Your task to perform on an android device: Empty the shopping cart on target. Search for usb-c to usb-b on target, select the first entry, and add it to the cart. Image 0: 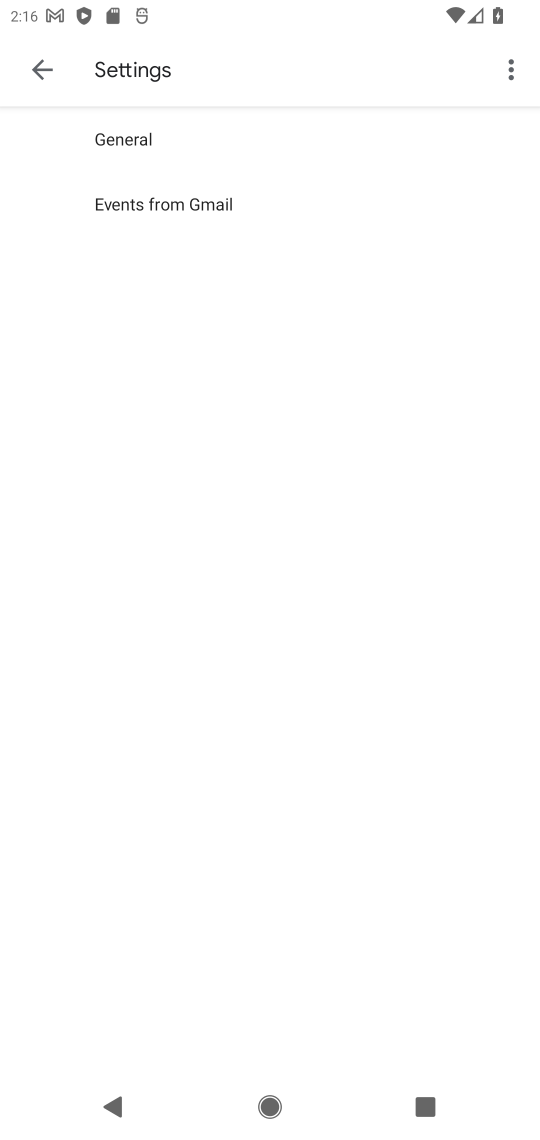
Step 0: press home button
Your task to perform on an android device: Empty the shopping cart on target. Search for usb-c to usb-b on target, select the first entry, and add it to the cart. Image 1: 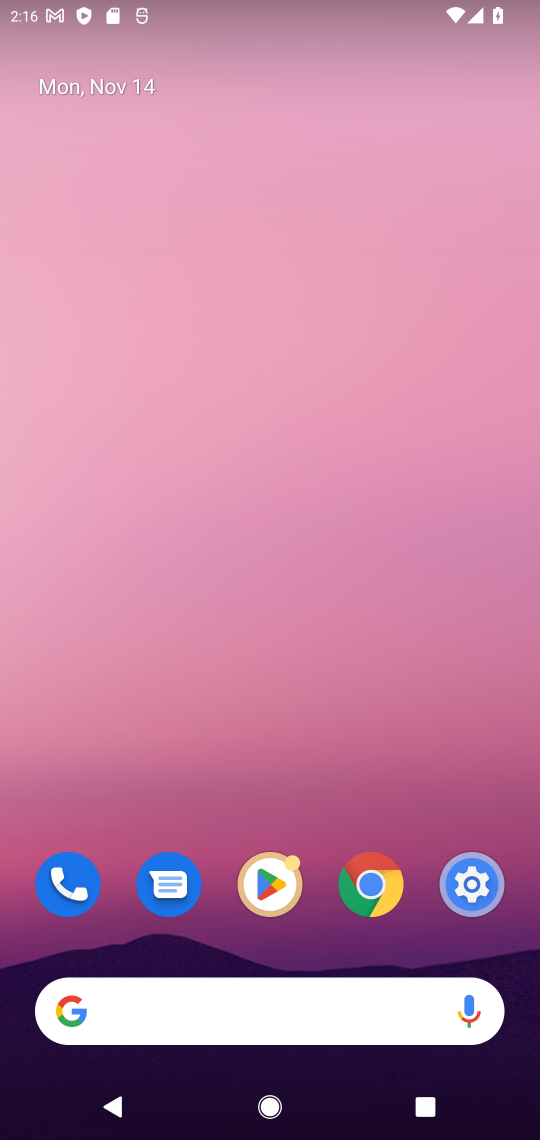
Step 1: click (363, 870)
Your task to perform on an android device: Empty the shopping cart on target. Search for usb-c to usb-b on target, select the first entry, and add it to the cart. Image 2: 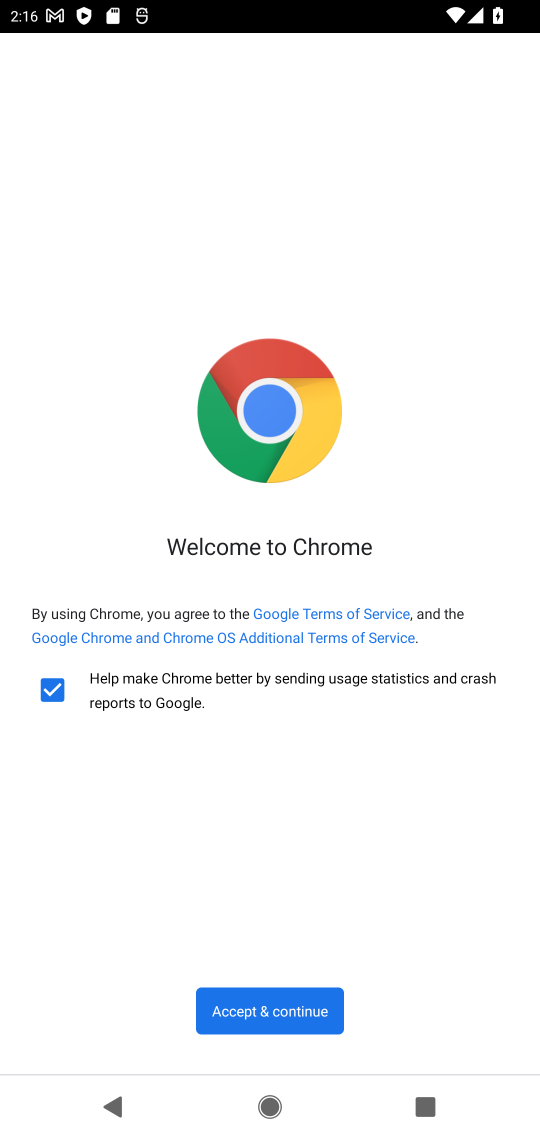
Step 2: click (269, 1006)
Your task to perform on an android device: Empty the shopping cart on target. Search for usb-c to usb-b on target, select the first entry, and add it to the cart. Image 3: 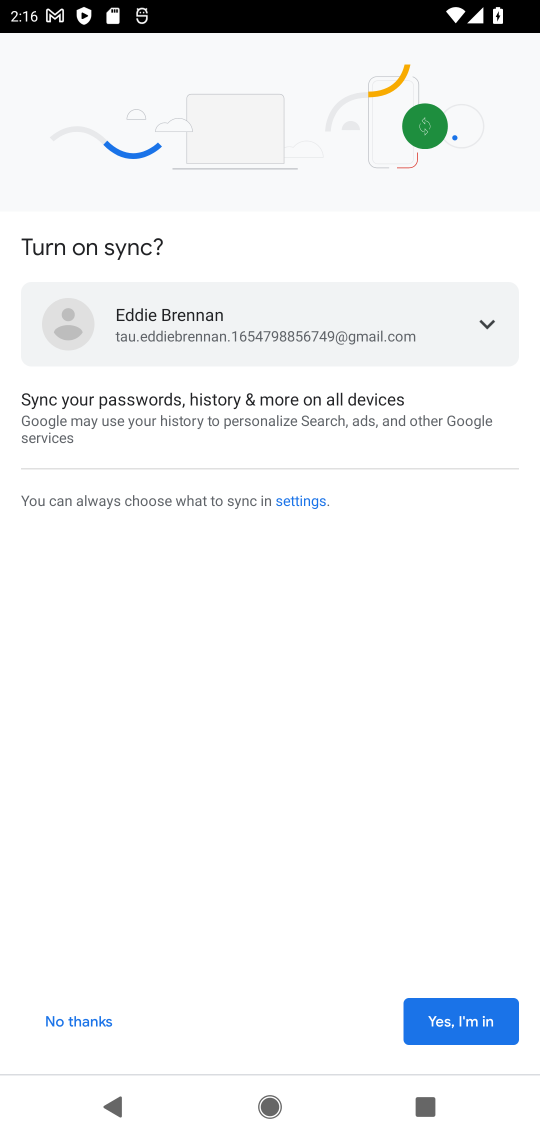
Step 3: click (484, 1022)
Your task to perform on an android device: Empty the shopping cart on target. Search for usb-c to usb-b on target, select the first entry, and add it to the cart. Image 4: 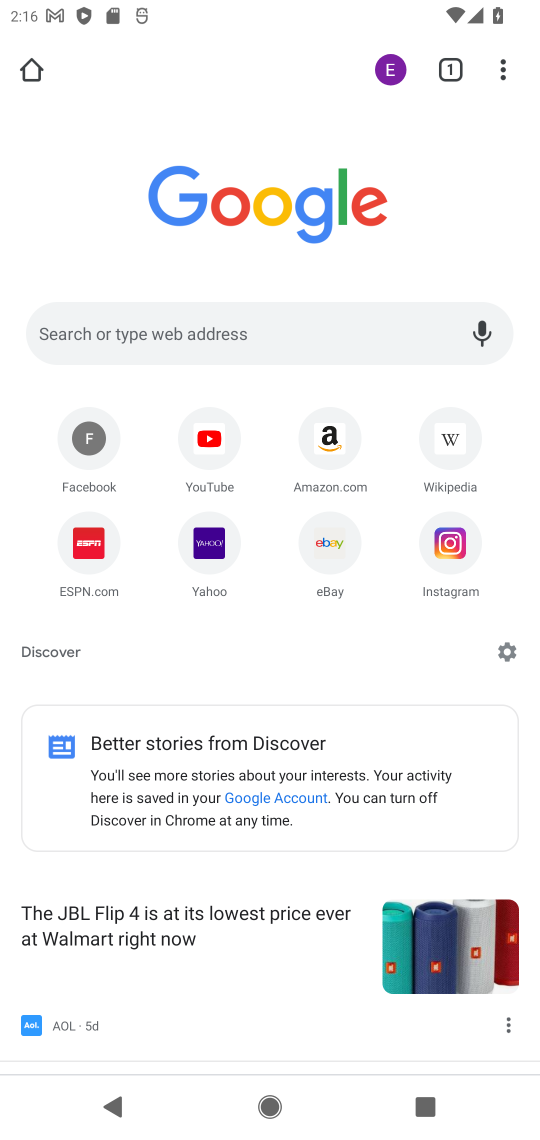
Step 4: click (284, 354)
Your task to perform on an android device: Empty the shopping cart on target. Search for usb-c to usb-b on target, select the first entry, and add it to the cart. Image 5: 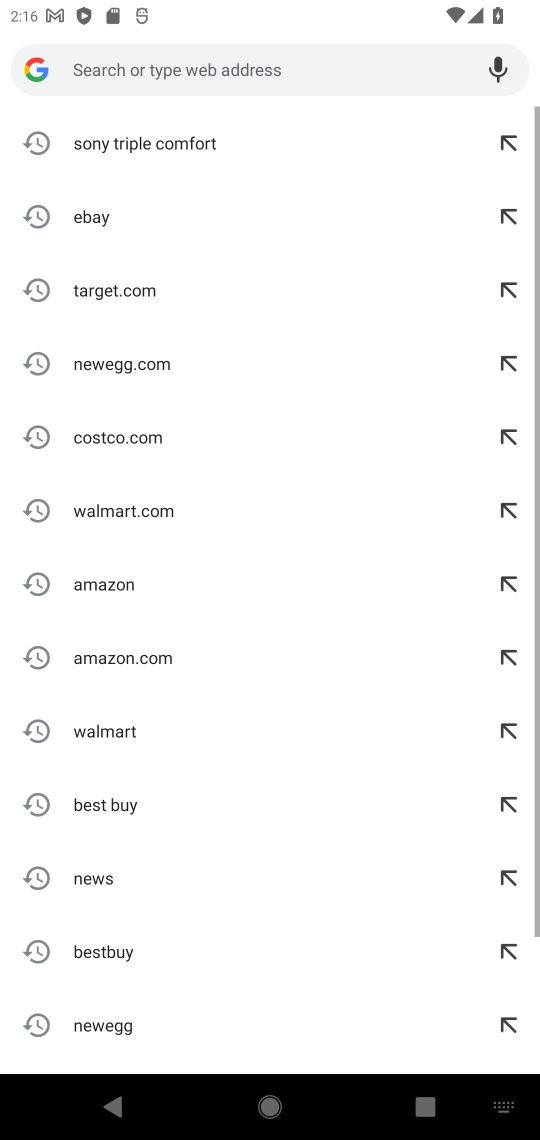
Step 5: click (120, 299)
Your task to perform on an android device: Empty the shopping cart on target. Search for usb-c to usb-b on target, select the first entry, and add it to the cart. Image 6: 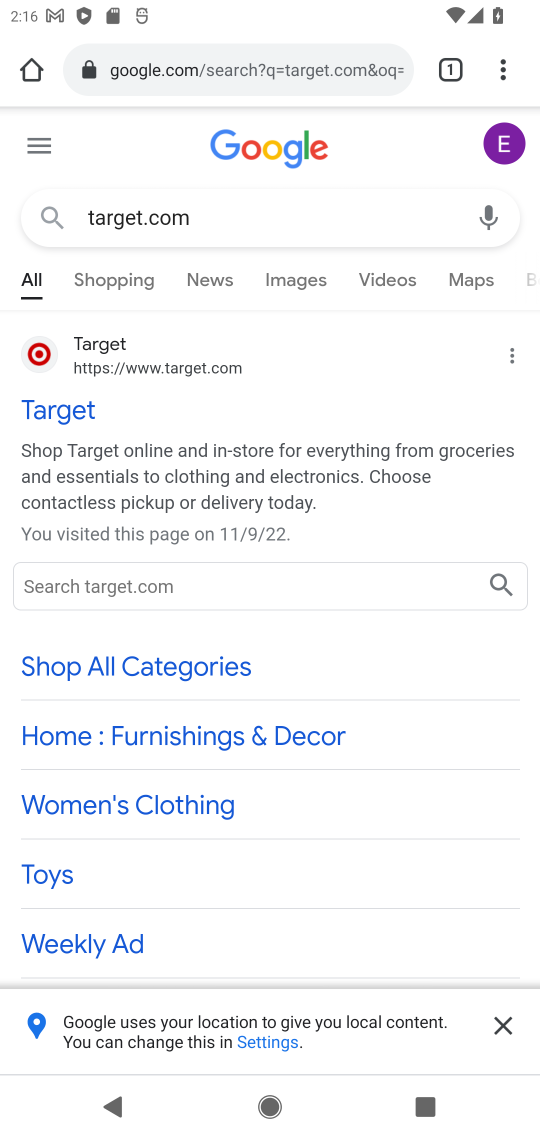
Step 6: click (200, 369)
Your task to perform on an android device: Empty the shopping cart on target. Search for usb-c to usb-b on target, select the first entry, and add it to the cart. Image 7: 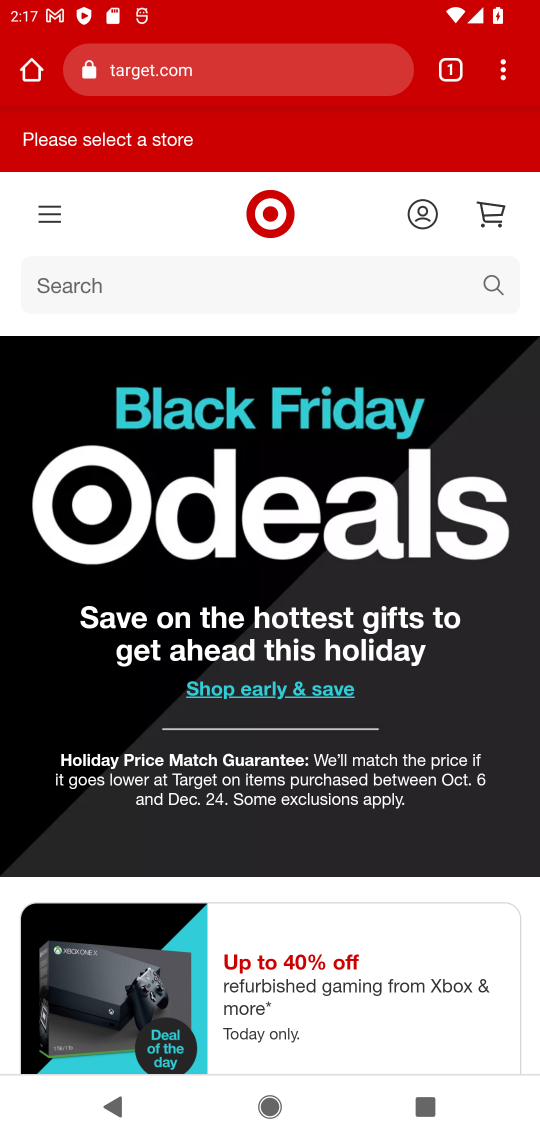
Step 7: click (495, 288)
Your task to perform on an android device: Empty the shopping cart on target. Search for usb-c to usb-b on target, select the first entry, and add it to the cart. Image 8: 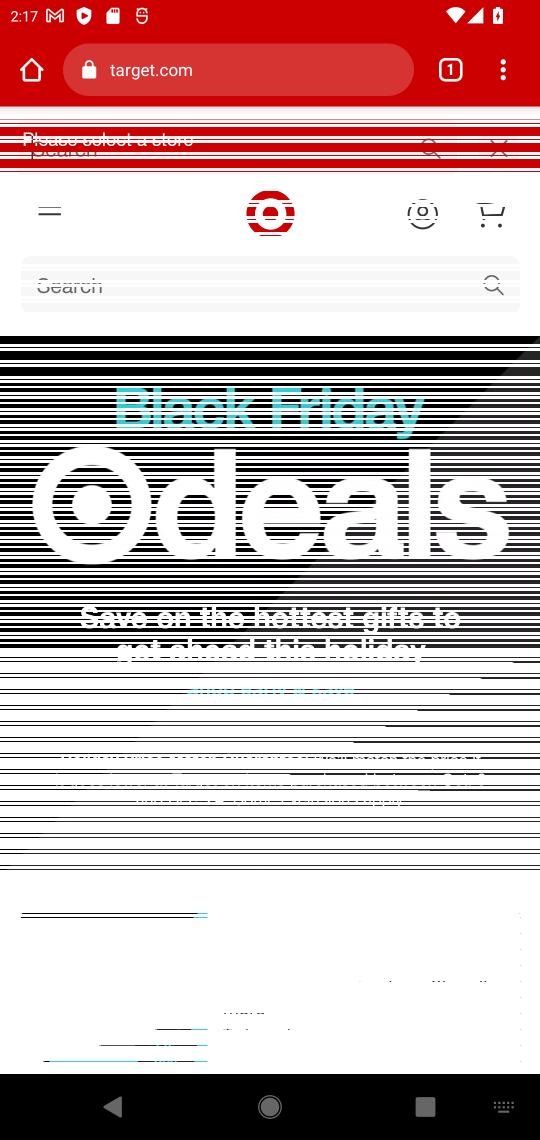
Step 8: type "usb-c to usb-b "
Your task to perform on an android device: Empty the shopping cart on target. Search for usb-c to usb-b on target, select the first entry, and add it to the cart. Image 9: 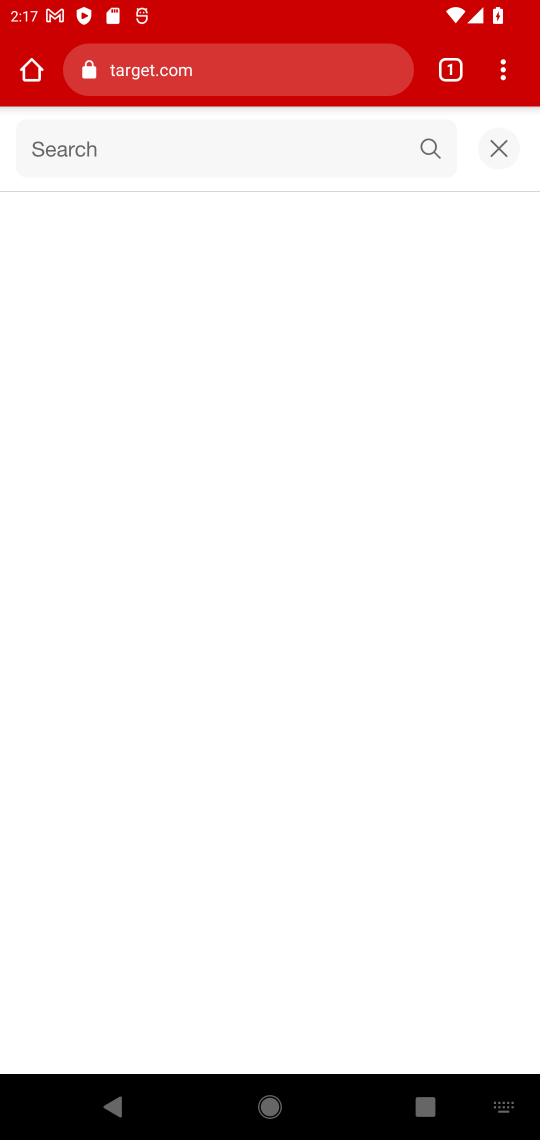
Step 9: press enter
Your task to perform on an android device: Empty the shopping cart on target. Search for usb-c to usb-b on target, select the first entry, and add it to the cart. Image 10: 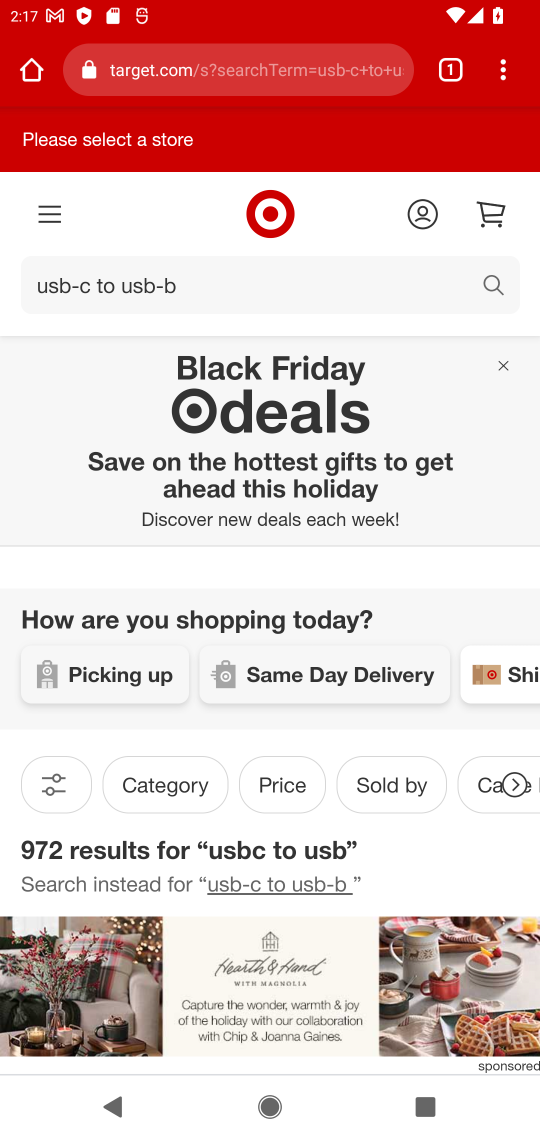
Step 10: task complete